Your task to perform on an android device: Search for Mexican restaurants on Maps Image 0: 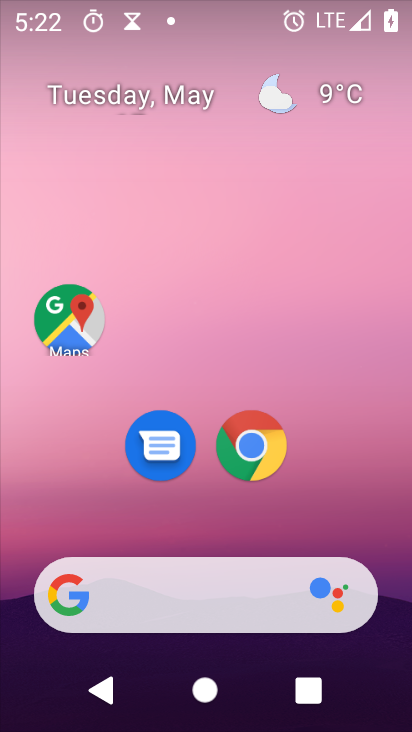
Step 0: press home button
Your task to perform on an android device: Search for Mexican restaurants on Maps Image 1: 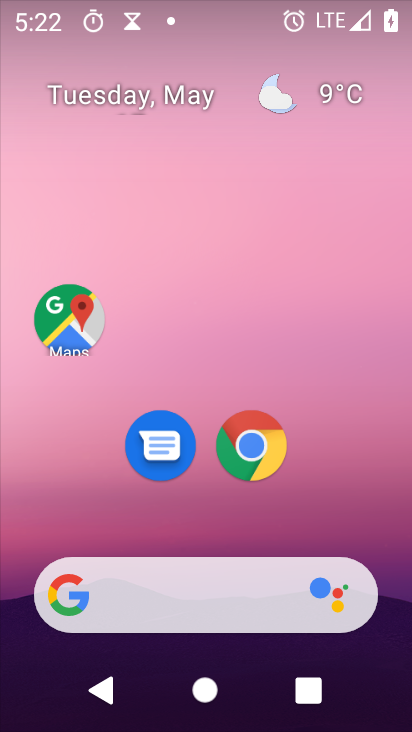
Step 1: drag from (328, 596) to (302, 1)
Your task to perform on an android device: Search for Mexican restaurants on Maps Image 2: 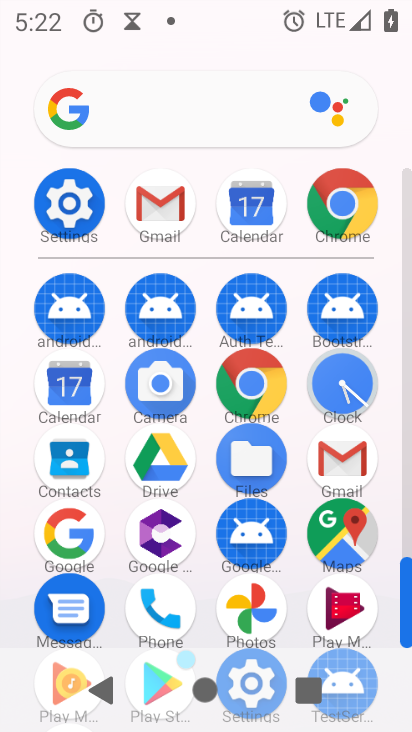
Step 2: click (334, 521)
Your task to perform on an android device: Search for Mexican restaurants on Maps Image 3: 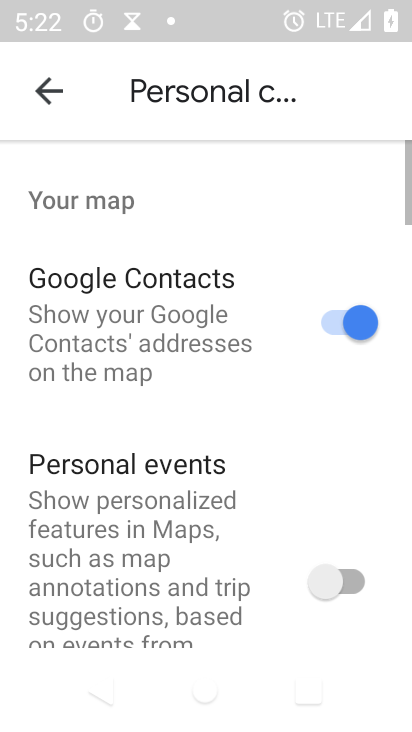
Step 3: press back button
Your task to perform on an android device: Search for Mexican restaurants on Maps Image 4: 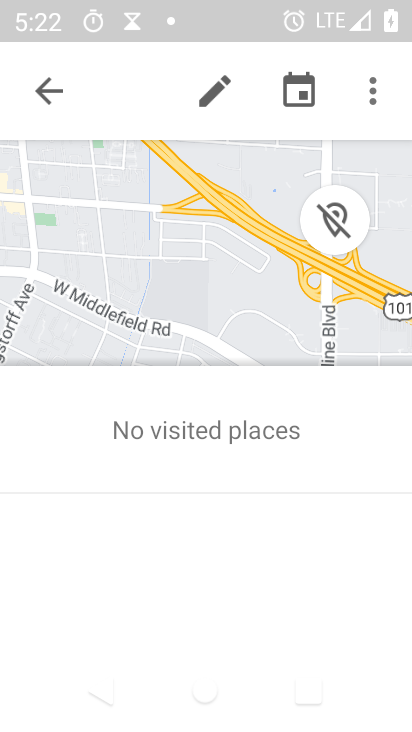
Step 4: press back button
Your task to perform on an android device: Search for Mexican restaurants on Maps Image 5: 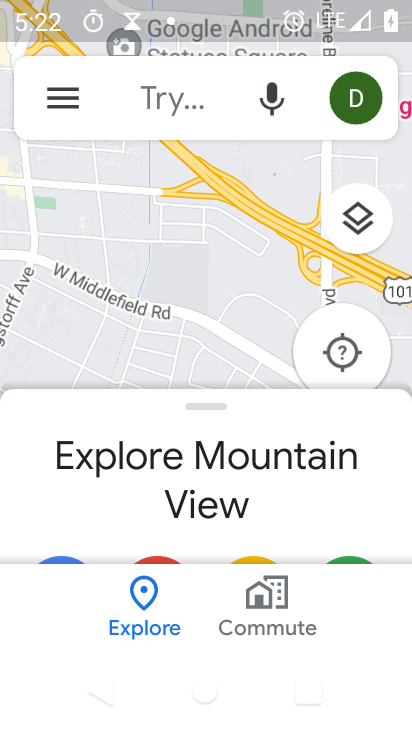
Step 5: click (204, 84)
Your task to perform on an android device: Search for Mexican restaurants on Maps Image 6: 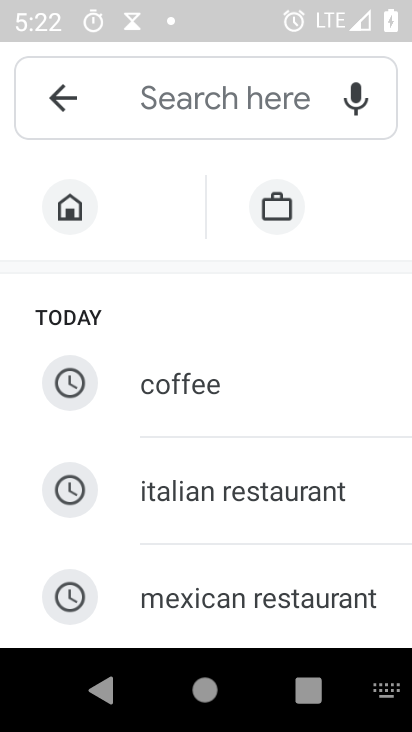
Step 6: click (274, 580)
Your task to perform on an android device: Search for Mexican restaurants on Maps Image 7: 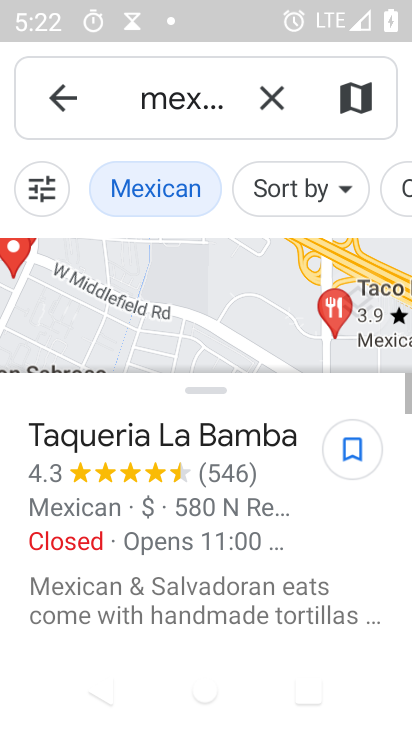
Step 7: task complete